Your task to perform on an android device: What's on my calendar tomorrow? Image 0: 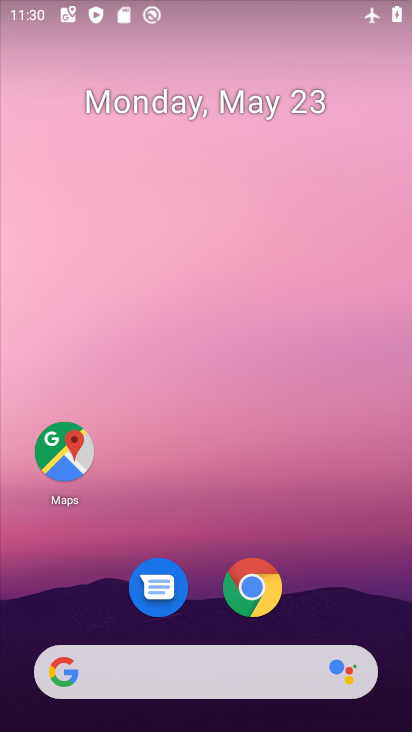
Step 0: drag from (378, 589) to (322, 155)
Your task to perform on an android device: What's on my calendar tomorrow? Image 1: 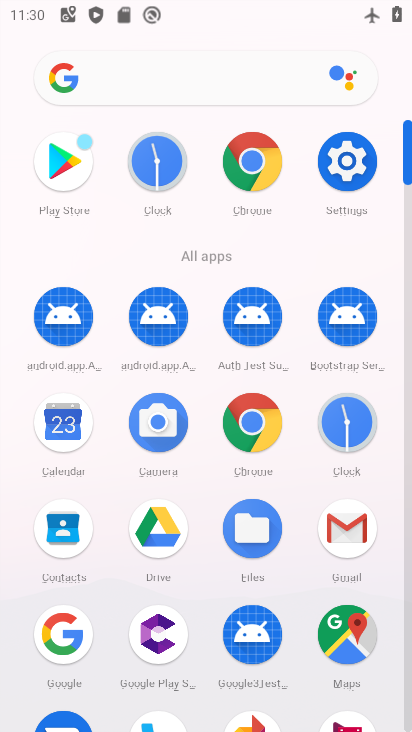
Step 1: click (64, 435)
Your task to perform on an android device: What's on my calendar tomorrow? Image 2: 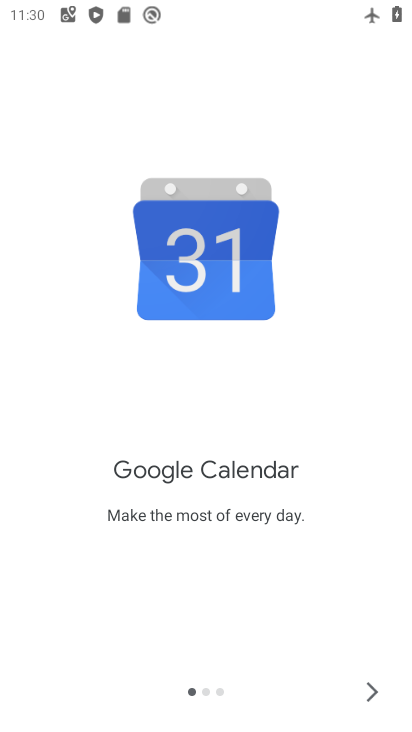
Step 2: click (377, 696)
Your task to perform on an android device: What's on my calendar tomorrow? Image 3: 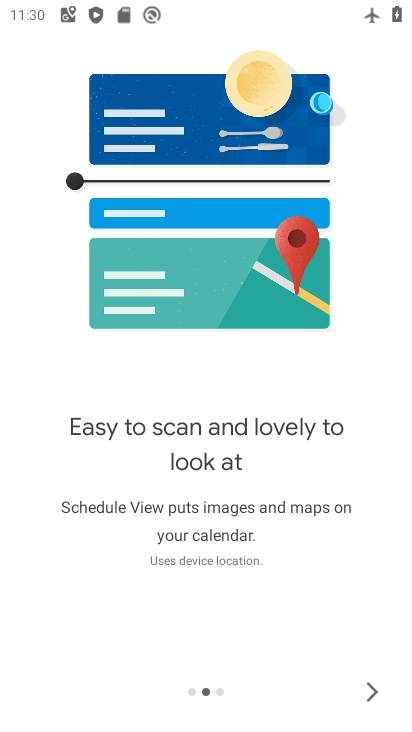
Step 3: click (377, 696)
Your task to perform on an android device: What's on my calendar tomorrow? Image 4: 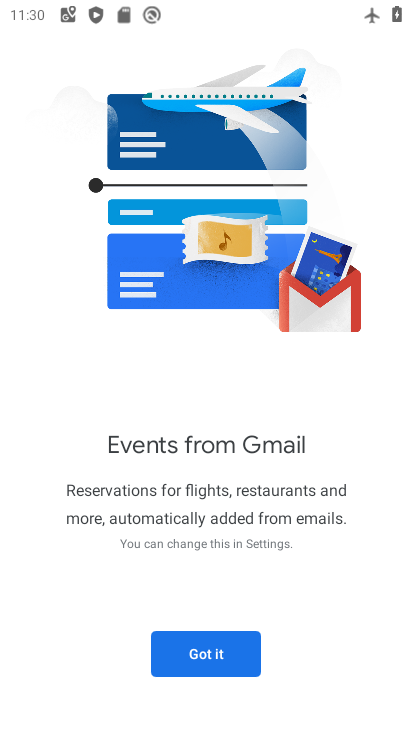
Step 4: click (215, 663)
Your task to perform on an android device: What's on my calendar tomorrow? Image 5: 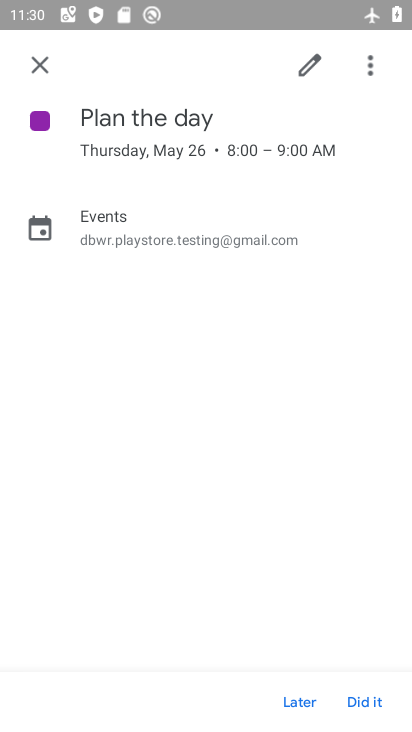
Step 5: click (41, 58)
Your task to perform on an android device: What's on my calendar tomorrow? Image 6: 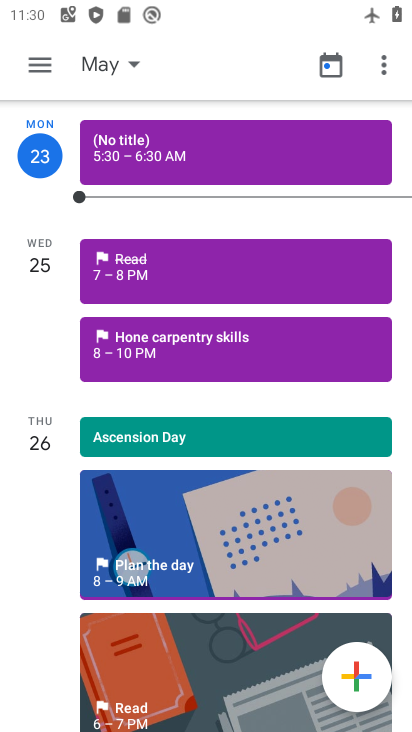
Step 6: click (112, 69)
Your task to perform on an android device: What's on my calendar tomorrow? Image 7: 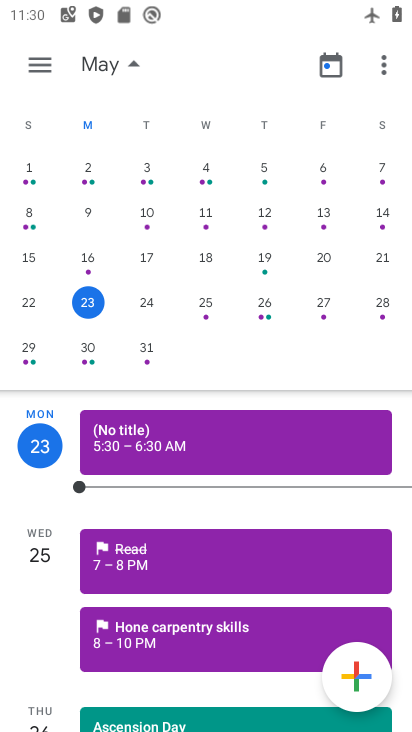
Step 7: click (195, 308)
Your task to perform on an android device: What's on my calendar tomorrow? Image 8: 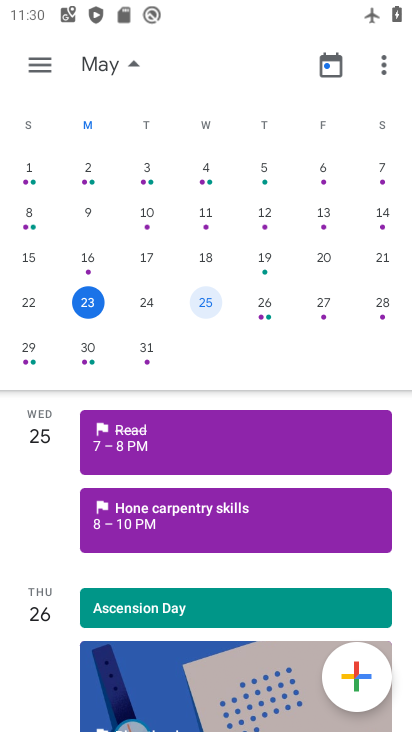
Step 8: click (120, 69)
Your task to perform on an android device: What's on my calendar tomorrow? Image 9: 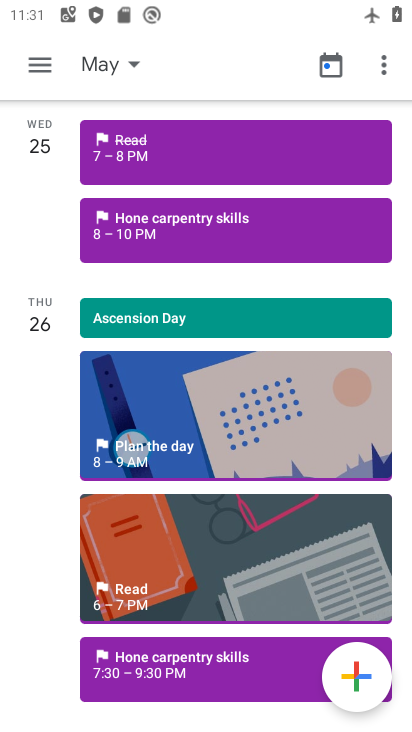
Step 9: task complete